Your task to perform on an android device: Open network settings Image 0: 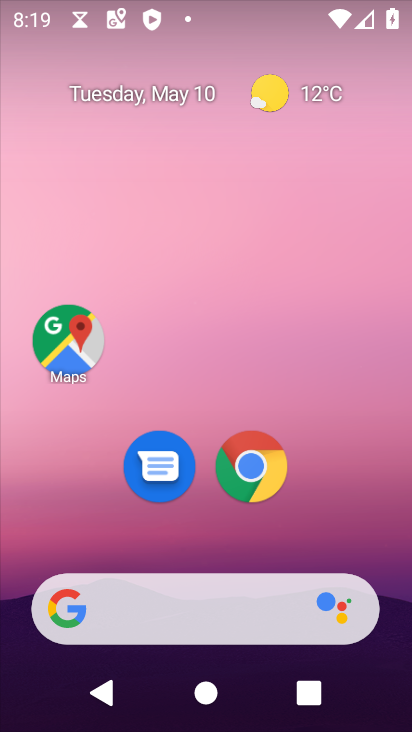
Step 0: drag from (202, 552) to (276, 0)
Your task to perform on an android device: Open network settings Image 1: 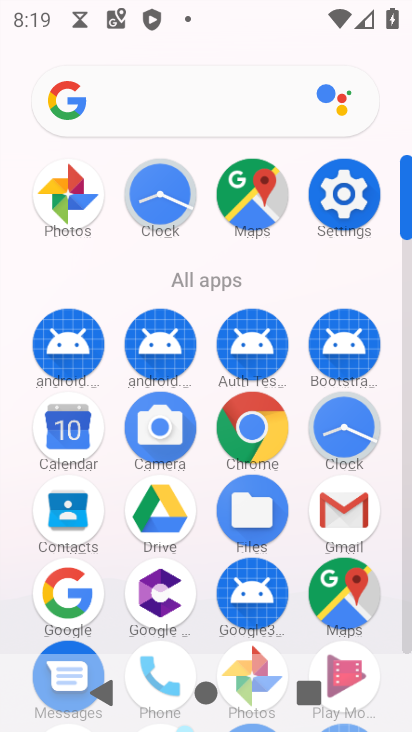
Step 1: click (351, 218)
Your task to perform on an android device: Open network settings Image 2: 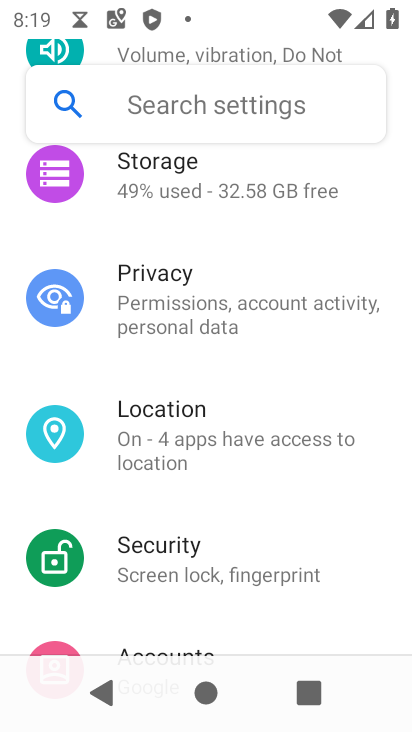
Step 2: drag from (263, 250) to (220, 574)
Your task to perform on an android device: Open network settings Image 3: 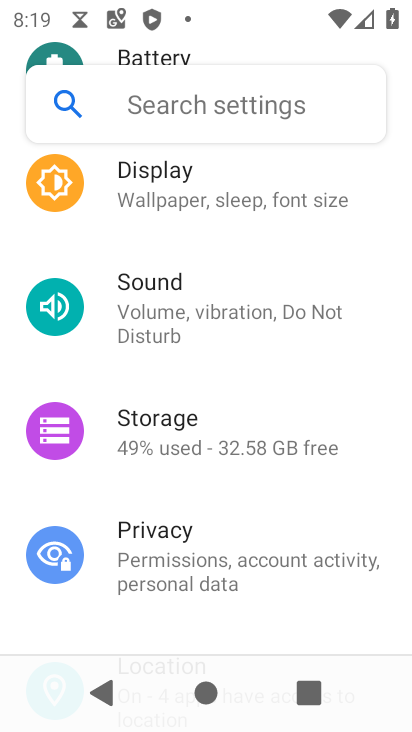
Step 3: drag from (206, 265) to (184, 622)
Your task to perform on an android device: Open network settings Image 4: 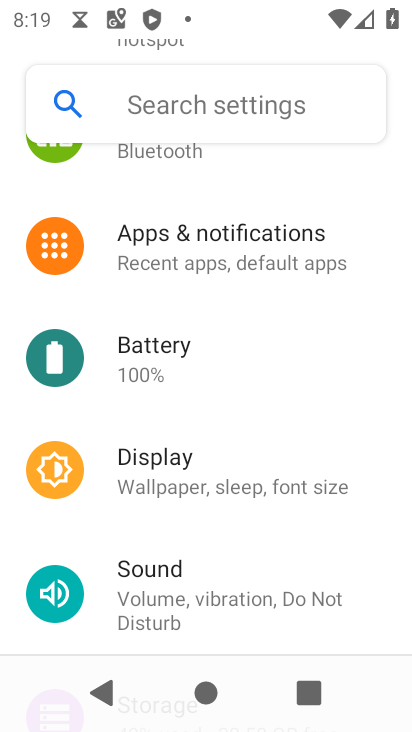
Step 4: drag from (190, 280) to (188, 731)
Your task to perform on an android device: Open network settings Image 5: 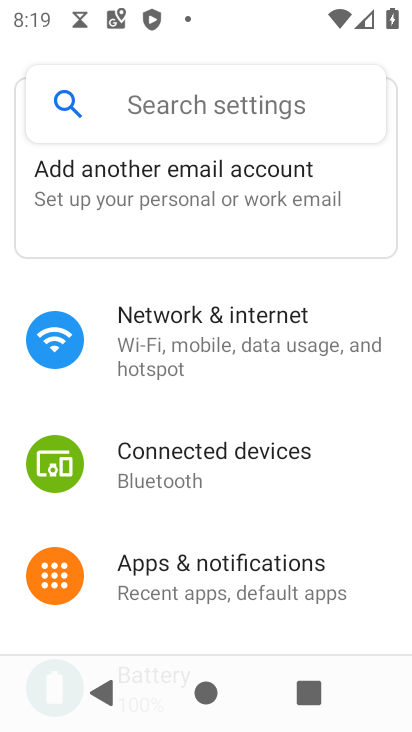
Step 5: click (215, 345)
Your task to perform on an android device: Open network settings Image 6: 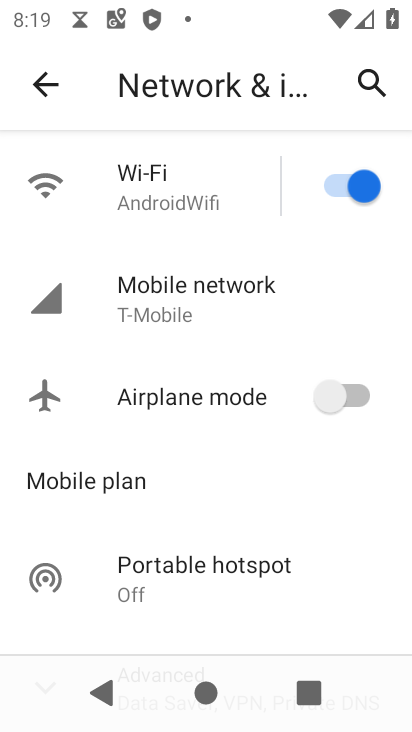
Step 6: task complete